Your task to perform on an android device: Open the phone app and click the voicemail tab. Image 0: 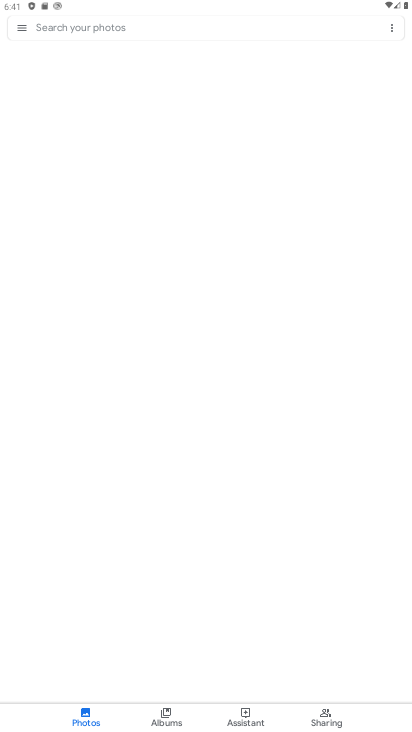
Step 0: press home button
Your task to perform on an android device: Open the phone app and click the voicemail tab. Image 1: 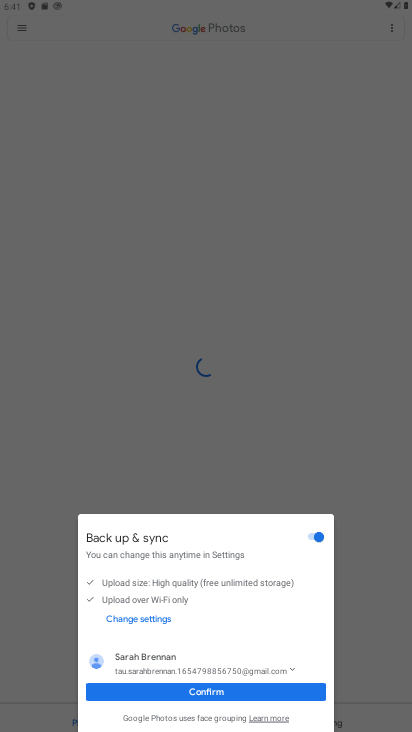
Step 1: click (331, 17)
Your task to perform on an android device: Open the phone app and click the voicemail tab. Image 2: 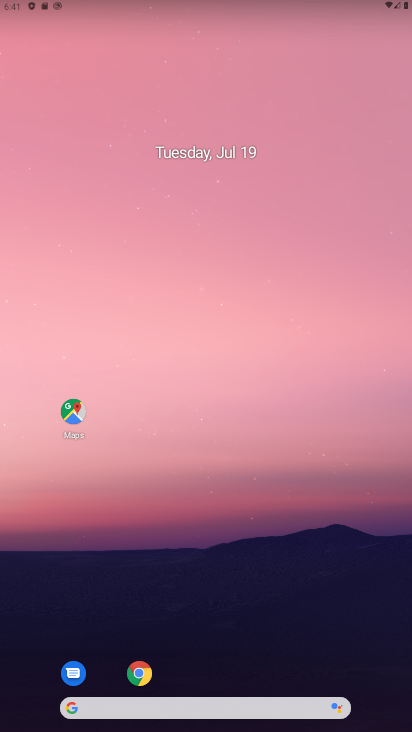
Step 2: drag from (387, 680) to (285, 47)
Your task to perform on an android device: Open the phone app and click the voicemail tab. Image 3: 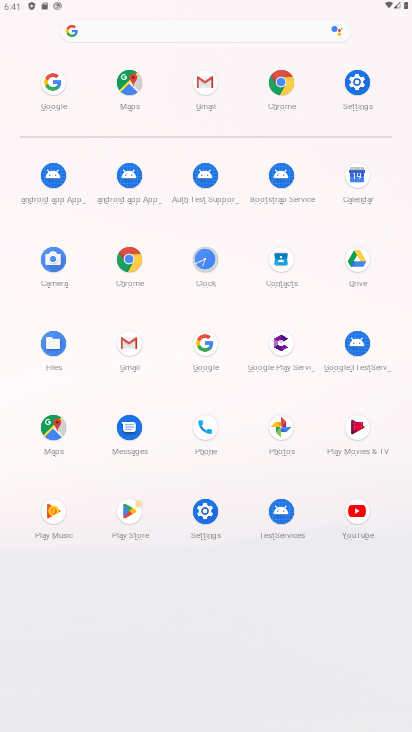
Step 3: click (198, 431)
Your task to perform on an android device: Open the phone app and click the voicemail tab. Image 4: 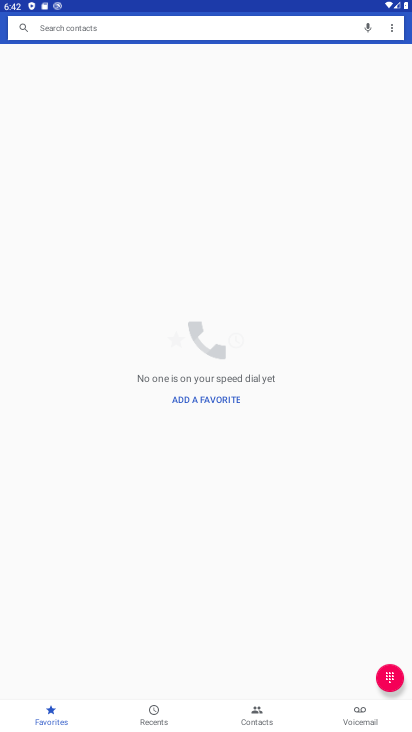
Step 4: click (359, 705)
Your task to perform on an android device: Open the phone app and click the voicemail tab. Image 5: 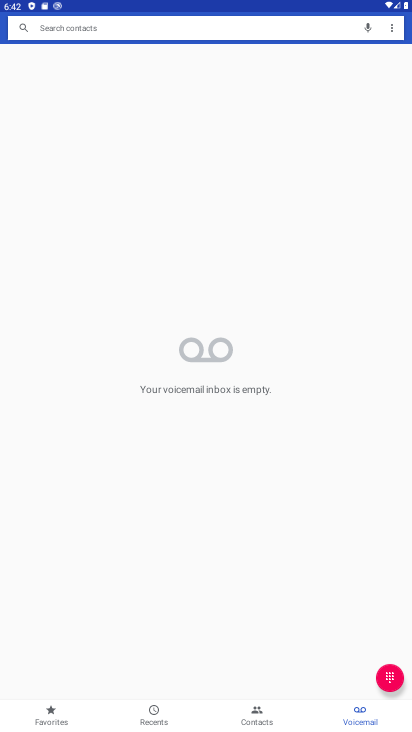
Step 5: task complete